Your task to perform on an android device: change keyboard looks Image 0: 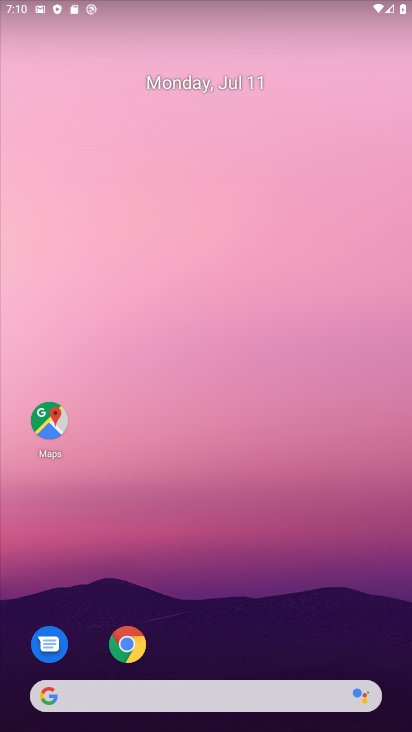
Step 0: drag from (287, 525) to (221, 123)
Your task to perform on an android device: change keyboard looks Image 1: 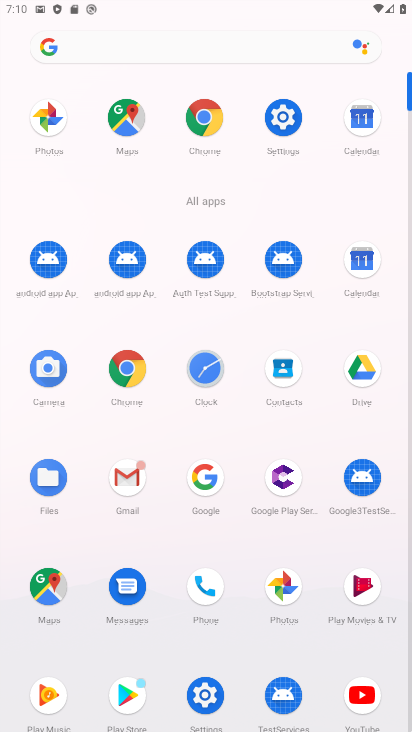
Step 1: click (276, 115)
Your task to perform on an android device: change keyboard looks Image 2: 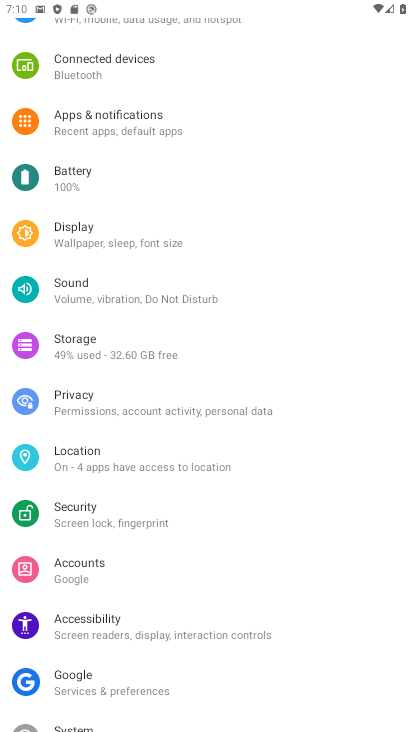
Step 2: drag from (297, 673) to (289, 279)
Your task to perform on an android device: change keyboard looks Image 3: 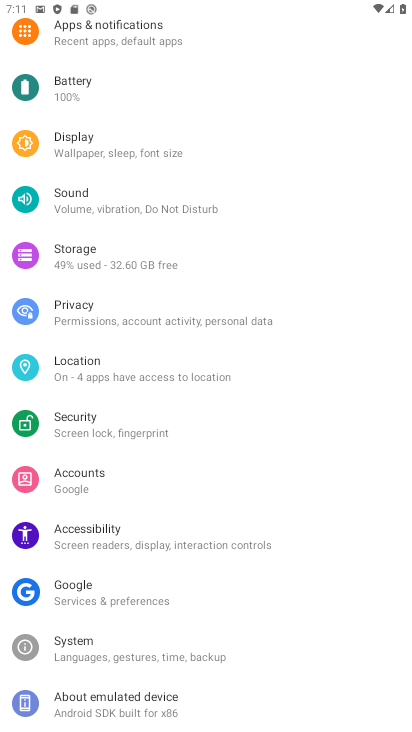
Step 3: click (70, 641)
Your task to perform on an android device: change keyboard looks Image 4: 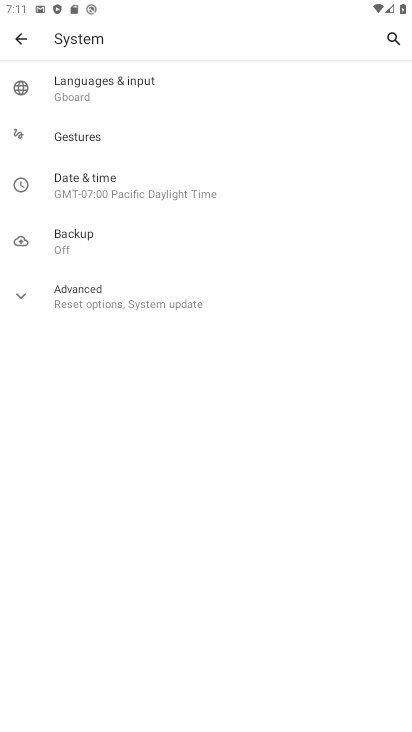
Step 4: click (76, 82)
Your task to perform on an android device: change keyboard looks Image 5: 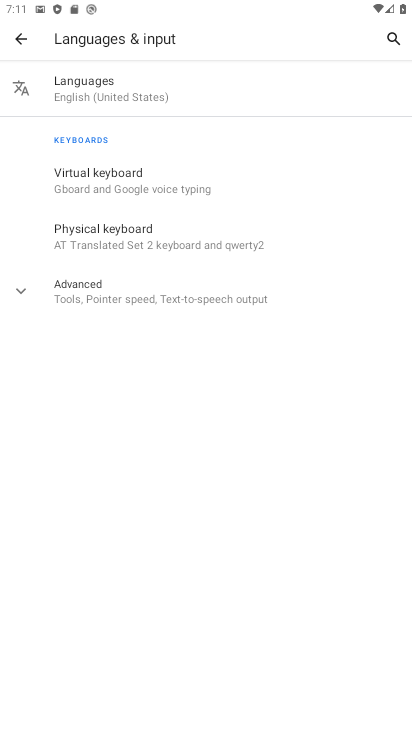
Step 5: click (95, 165)
Your task to perform on an android device: change keyboard looks Image 6: 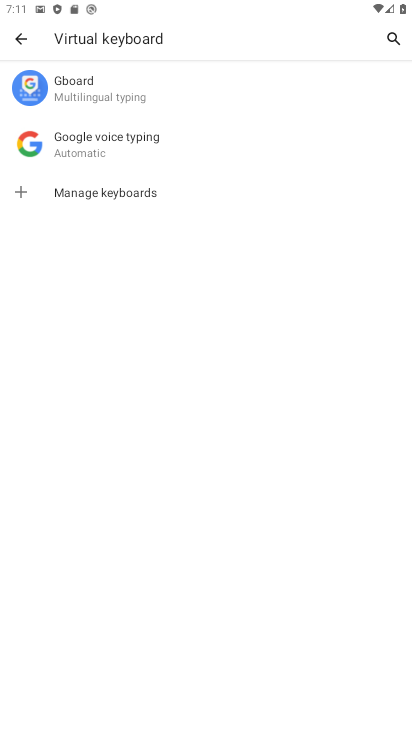
Step 6: click (79, 84)
Your task to perform on an android device: change keyboard looks Image 7: 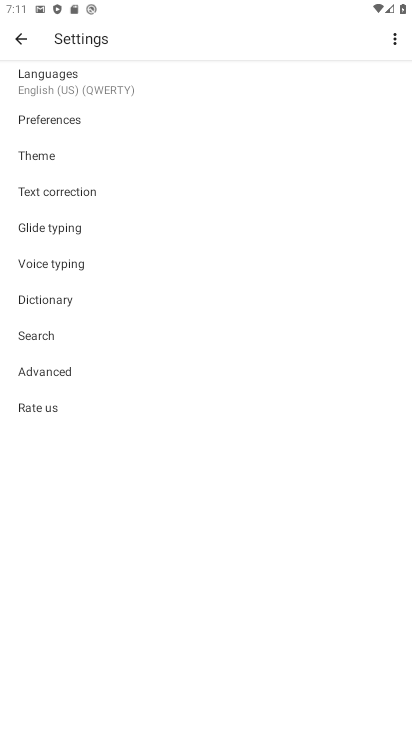
Step 7: click (47, 150)
Your task to perform on an android device: change keyboard looks Image 8: 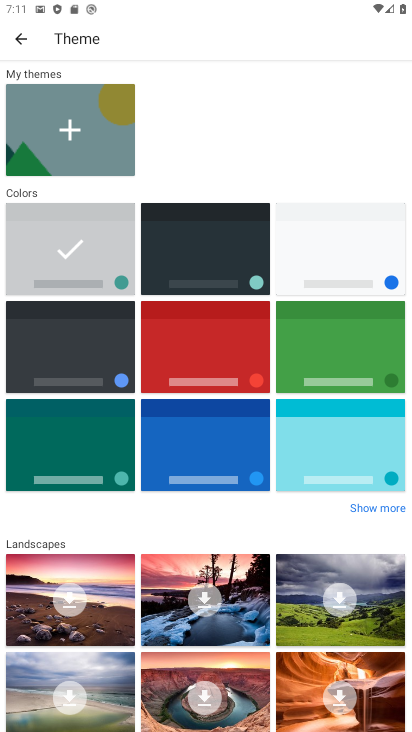
Step 8: click (198, 243)
Your task to perform on an android device: change keyboard looks Image 9: 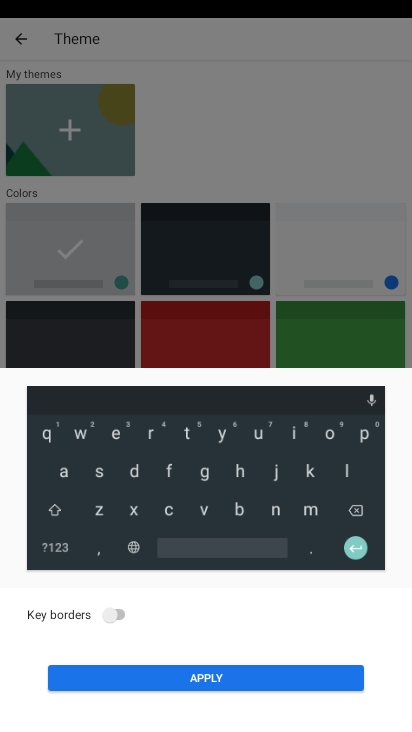
Step 9: click (232, 684)
Your task to perform on an android device: change keyboard looks Image 10: 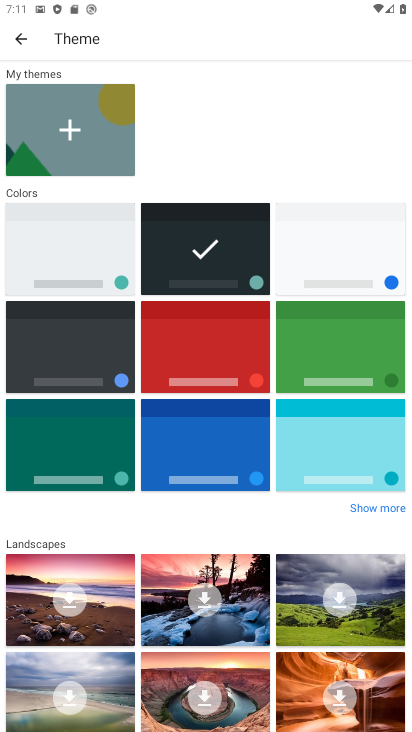
Step 10: task complete